Your task to perform on an android device: turn on notifications settings in the gmail app Image 0: 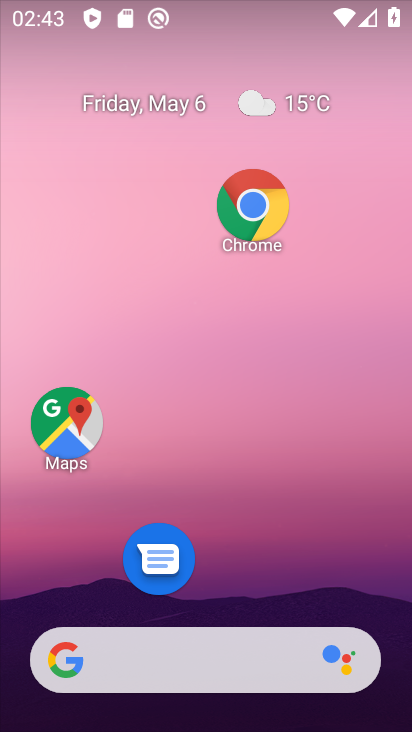
Step 0: drag from (288, 556) to (336, 21)
Your task to perform on an android device: turn on notifications settings in the gmail app Image 1: 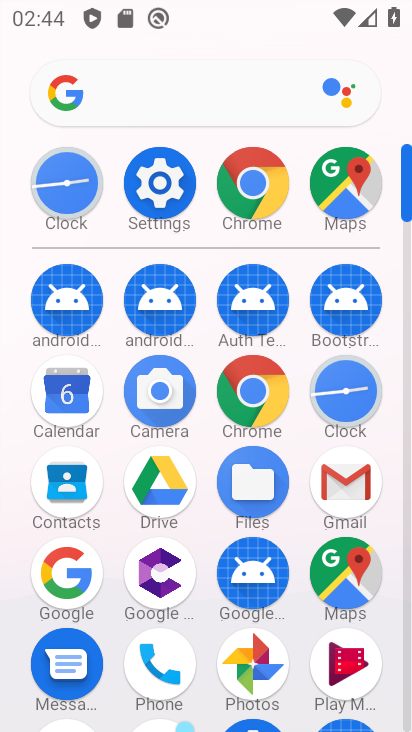
Step 1: click (160, 185)
Your task to perform on an android device: turn on notifications settings in the gmail app Image 2: 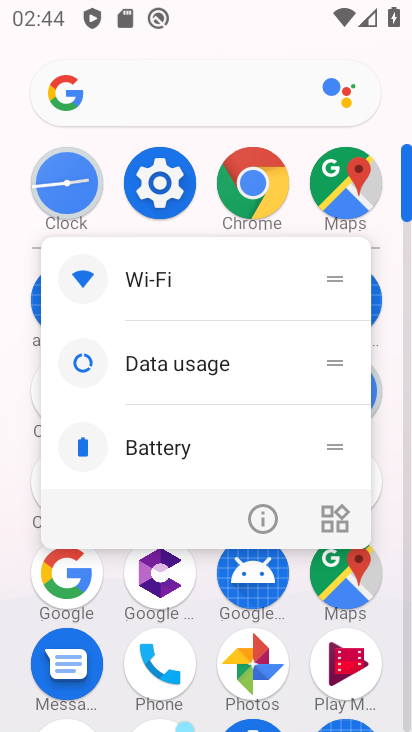
Step 2: click (147, 177)
Your task to perform on an android device: turn on notifications settings in the gmail app Image 3: 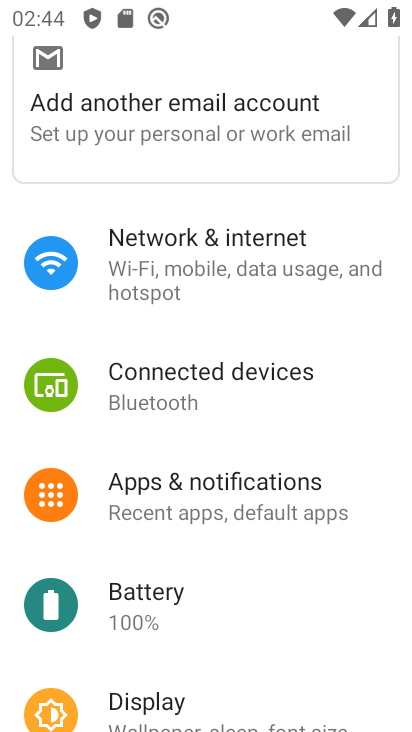
Step 3: click (228, 529)
Your task to perform on an android device: turn on notifications settings in the gmail app Image 4: 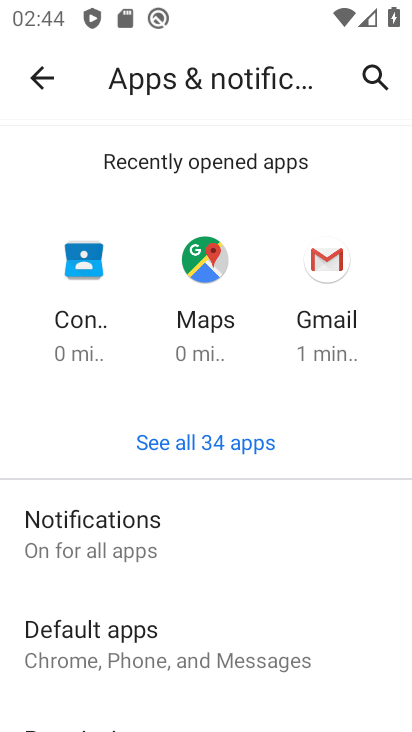
Step 4: task complete